Your task to perform on an android device: add a contact Image 0: 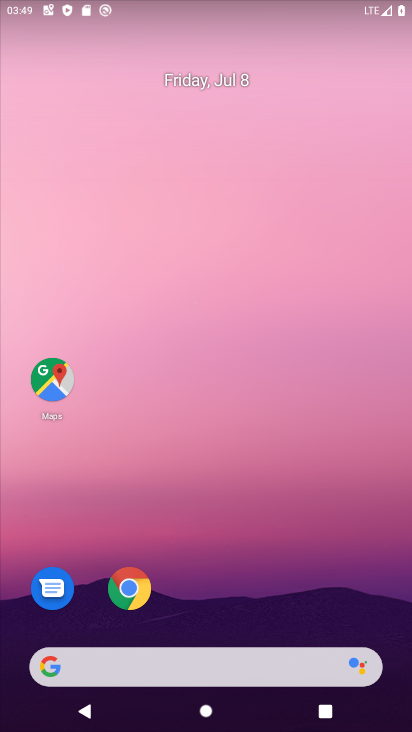
Step 0: drag from (206, 570) to (208, 218)
Your task to perform on an android device: add a contact Image 1: 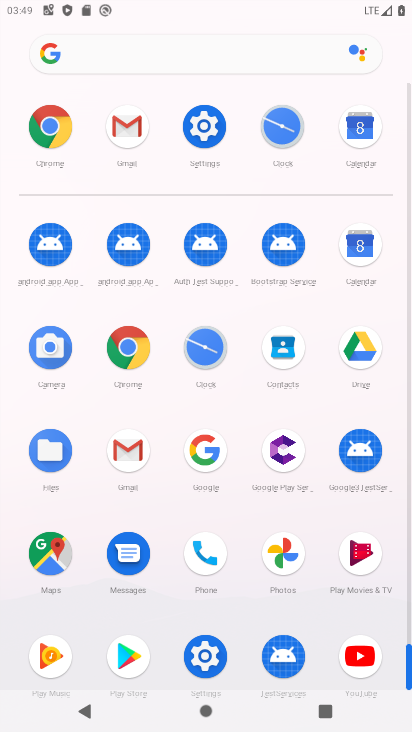
Step 1: click (128, 129)
Your task to perform on an android device: add a contact Image 2: 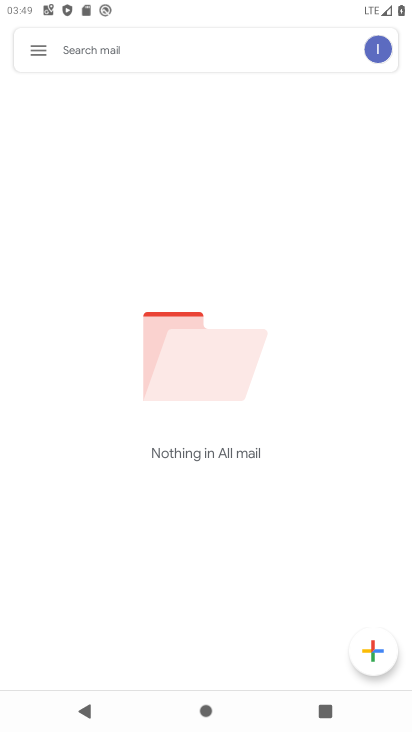
Step 2: press home button
Your task to perform on an android device: add a contact Image 3: 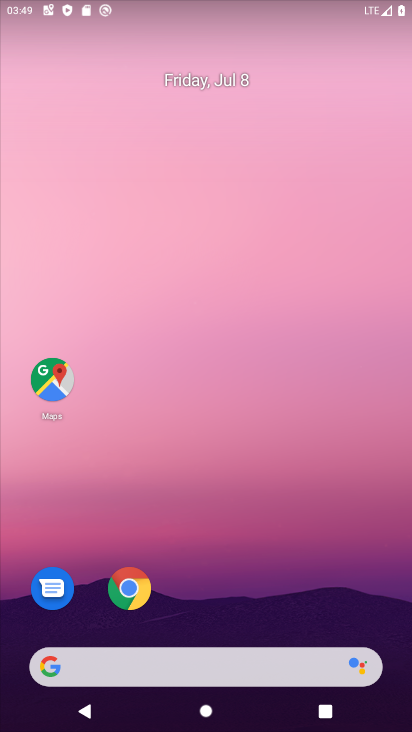
Step 3: drag from (194, 428) to (244, 81)
Your task to perform on an android device: add a contact Image 4: 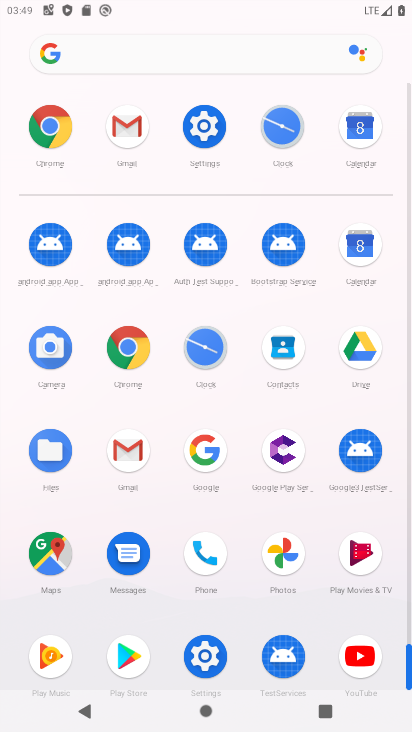
Step 4: click (279, 351)
Your task to perform on an android device: add a contact Image 5: 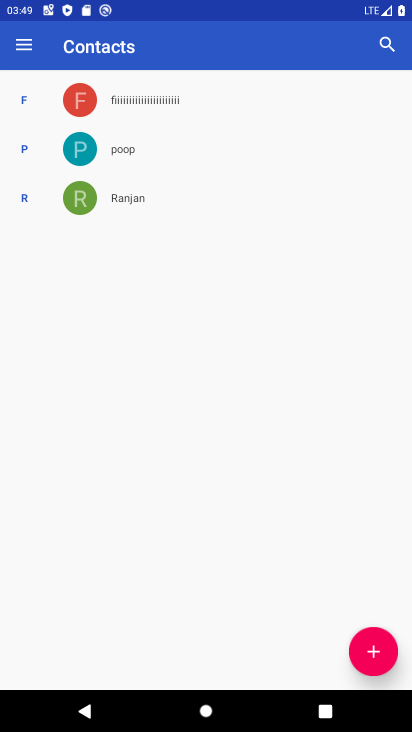
Step 5: click (361, 663)
Your task to perform on an android device: add a contact Image 6: 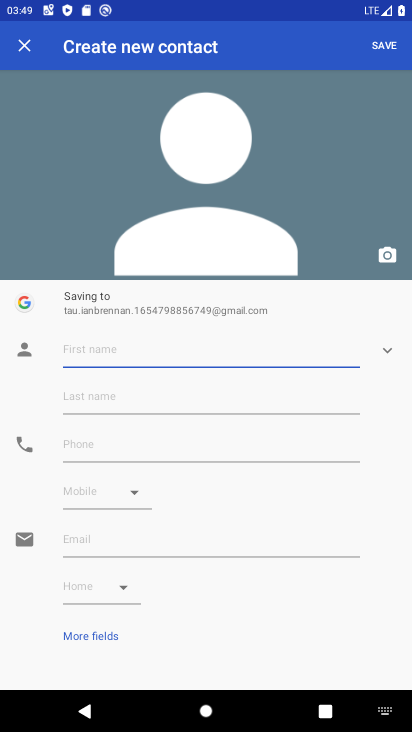
Step 6: type "Nasheen"
Your task to perform on an android device: add a contact Image 7: 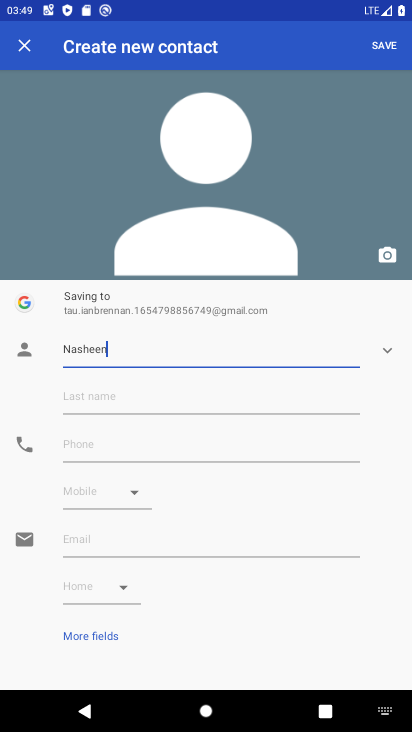
Step 7: click (278, 401)
Your task to perform on an android device: add a contact Image 8: 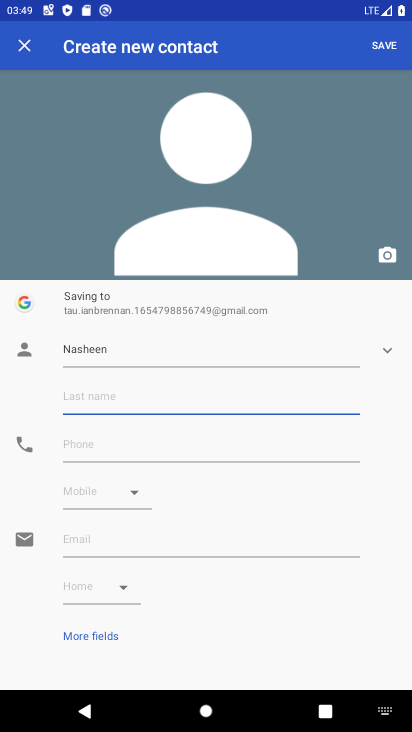
Step 8: click (169, 455)
Your task to perform on an android device: add a contact Image 9: 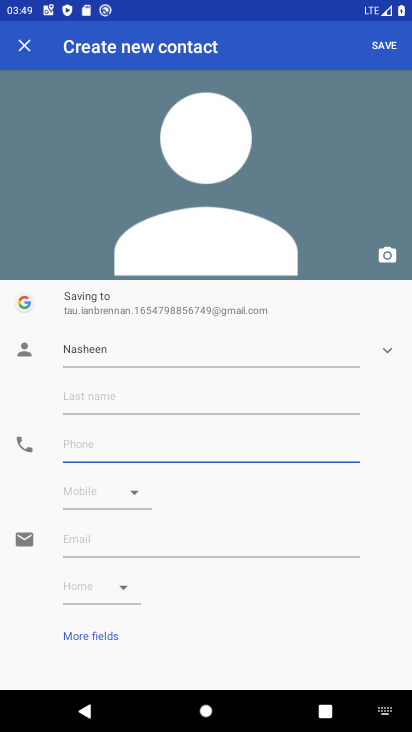
Step 9: type "9090090990"
Your task to perform on an android device: add a contact Image 10: 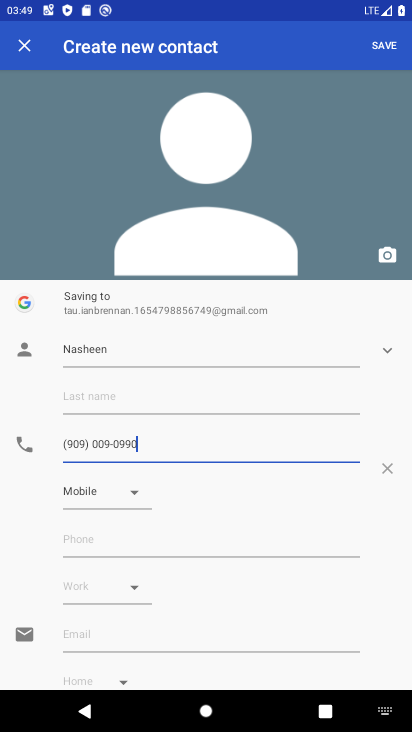
Step 10: click (396, 46)
Your task to perform on an android device: add a contact Image 11: 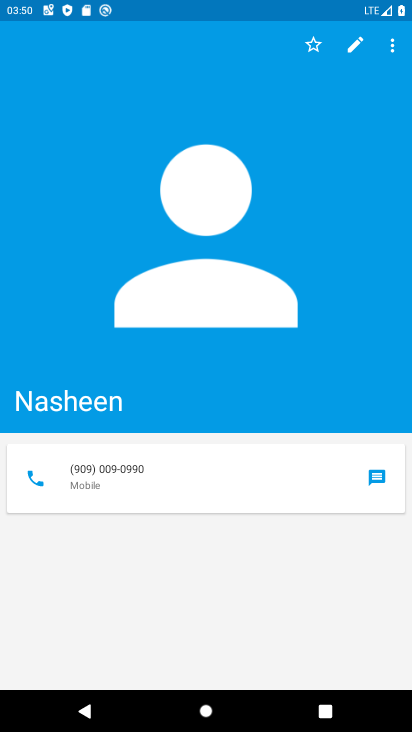
Step 11: task complete